Your task to perform on an android device: turn notification dots off Image 0: 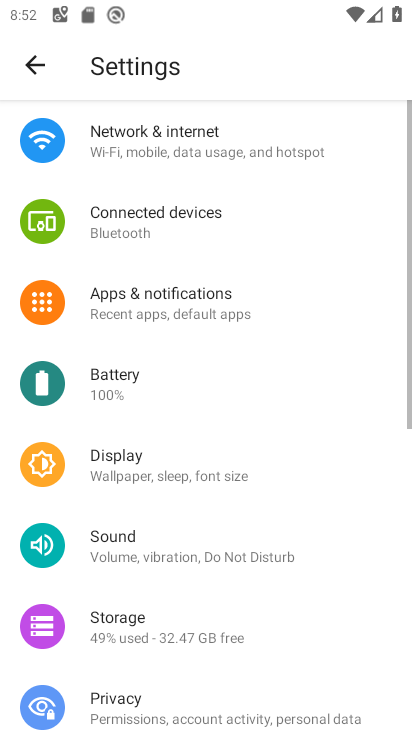
Step 0: press home button
Your task to perform on an android device: turn notification dots off Image 1: 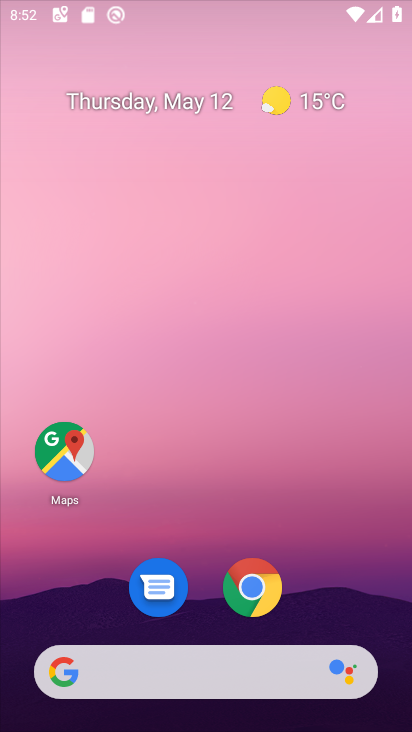
Step 1: drag from (392, 672) to (293, 83)
Your task to perform on an android device: turn notification dots off Image 2: 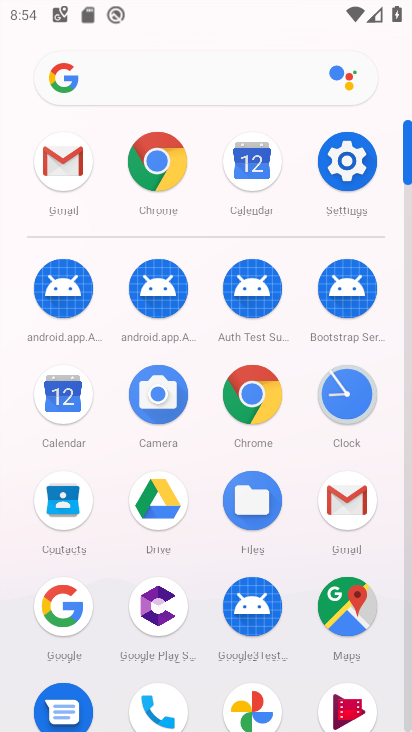
Step 2: click (346, 173)
Your task to perform on an android device: turn notification dots off Image 3: 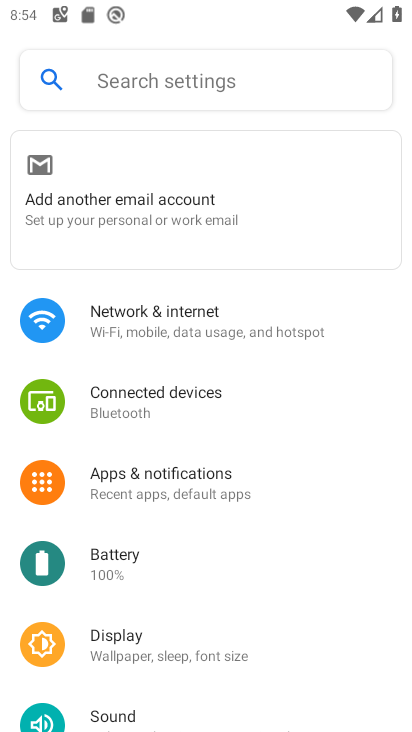
Step 3: click (220, 480)
Your task to perform on an android device: turn notification dots off Image 4: 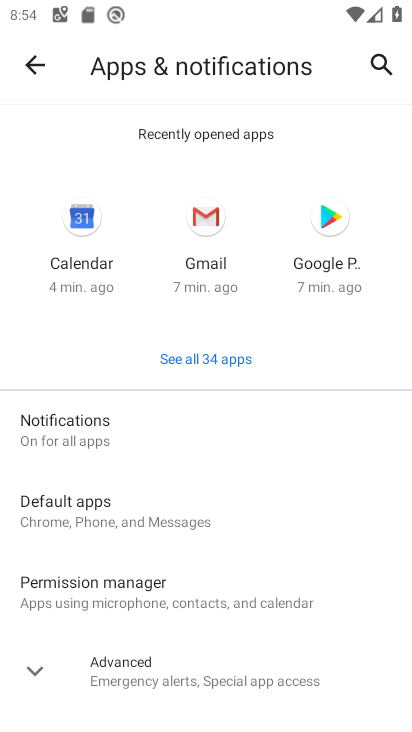
Step 4: click (155, 454)
Your task to perform on an android device: turn notification dots off Image 5: 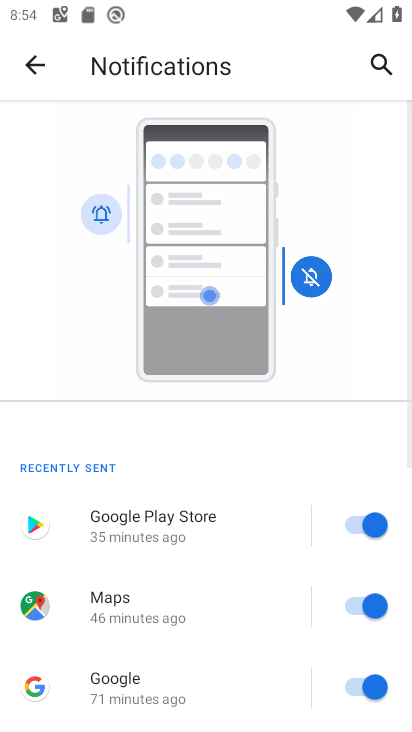
Step 5: drag from (200, 637) to (190, 27)
Your task to perform on an android device: turn notification dots off Image 6: 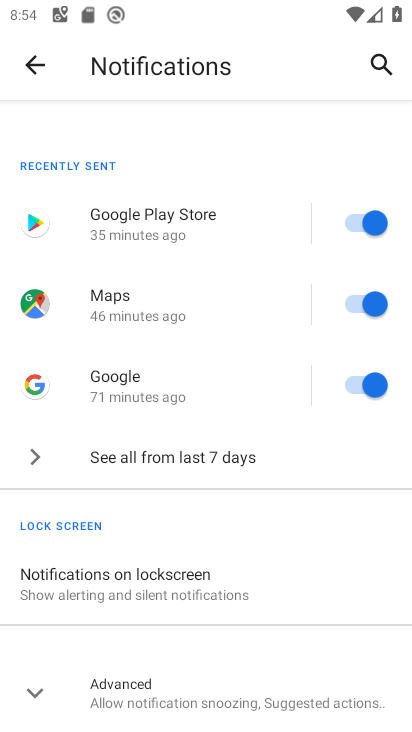
Step 6: click (142, 698)
Your task to perform on an android device: turn notification dots off Image 7: 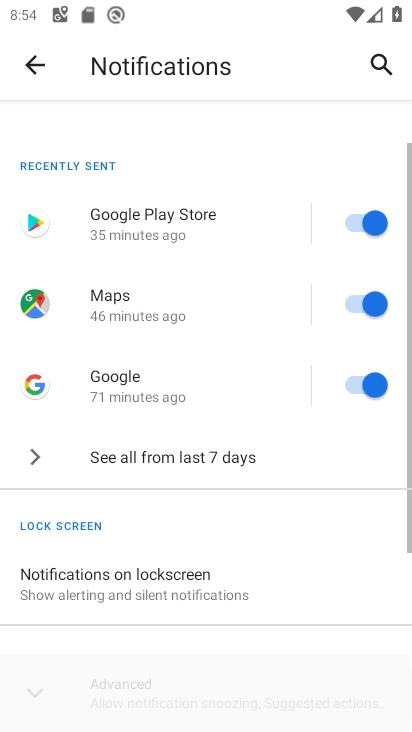
Step 7: drag from (142, 698) to (164, 203)
Your task to perform on an android device: turn notification dots off Image 8: 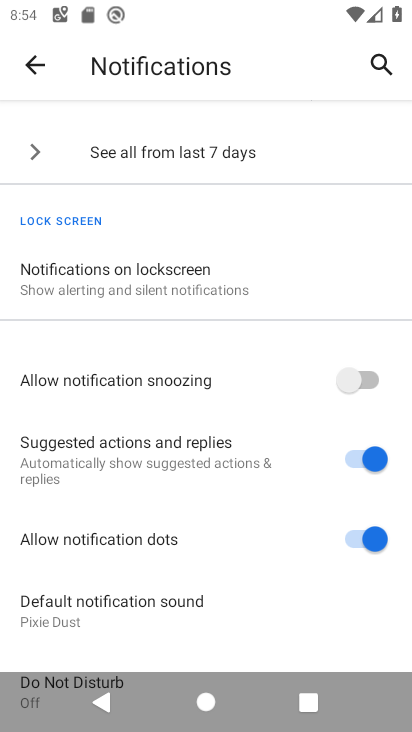
Step 8: click (275, 535)
Your task to perform on an android device: turn notification dots off Image 9: 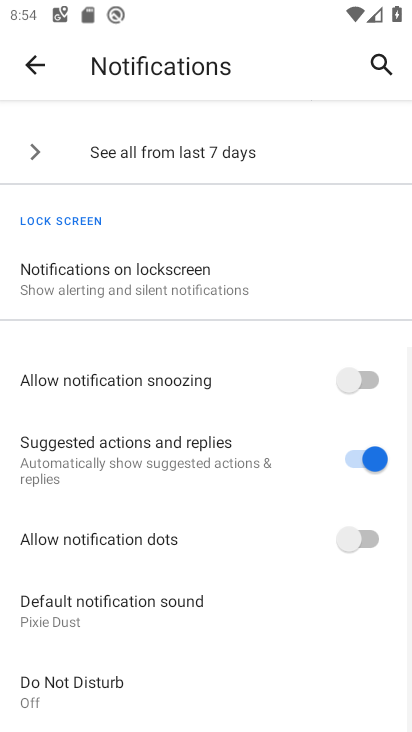
Step 9: task complete